Your task to perform on an android device: uninstall "Gmail" Image 0: 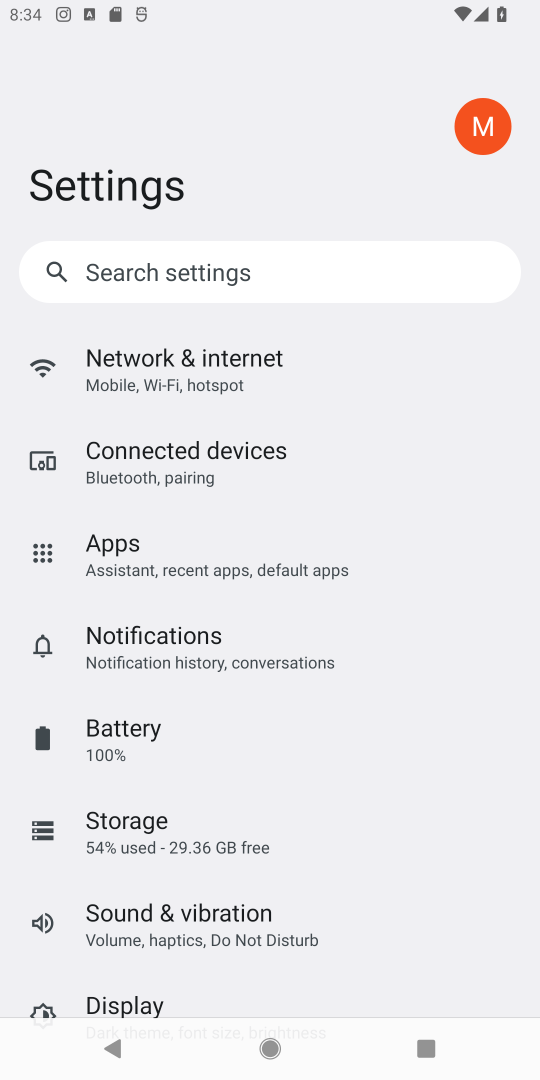
Step 0: press home button
Your task to perform on an android device: uninstall "Gmail" Image 1: 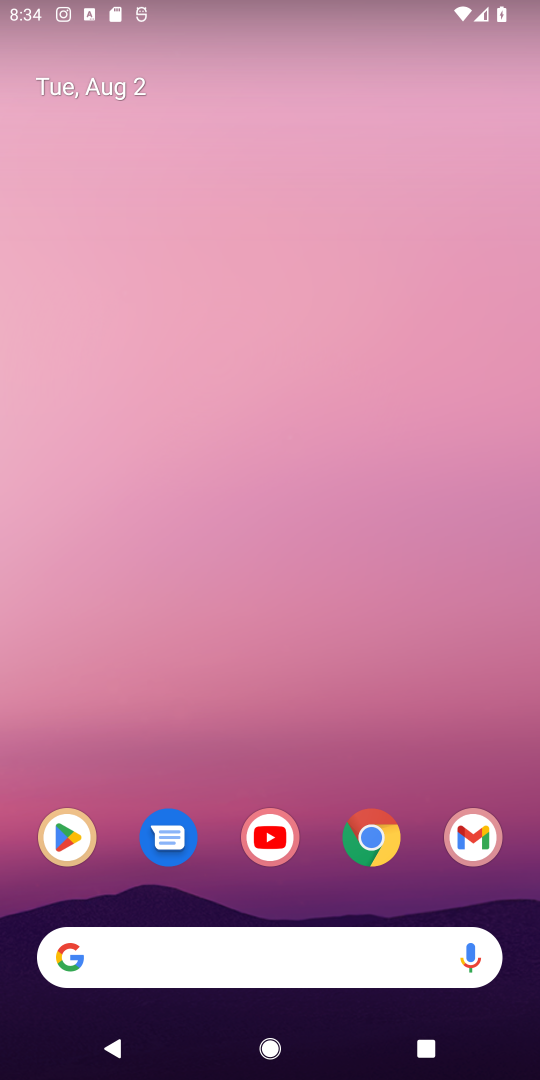
Step 1: click (64, 840)
Your task to perform on an android device: uninstall "Gmail" Image 2: 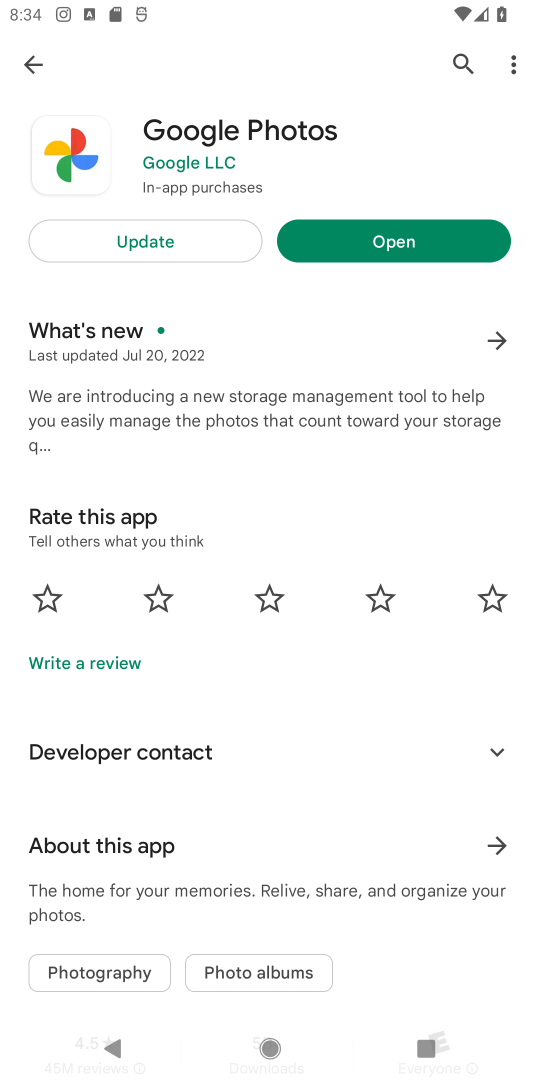
Step 2: click (461, 62)
Your task to perform on an android device: uninstall "Gmail" Image 3: 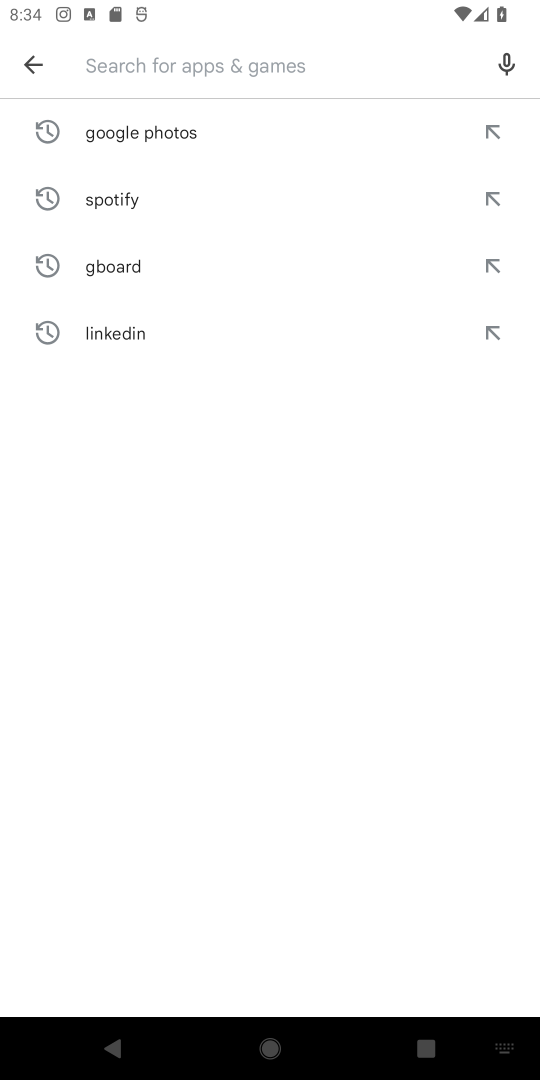
Step 3: type "Gmail"
Your task to perform on an android device: uninstall "Gmail" Image 4: 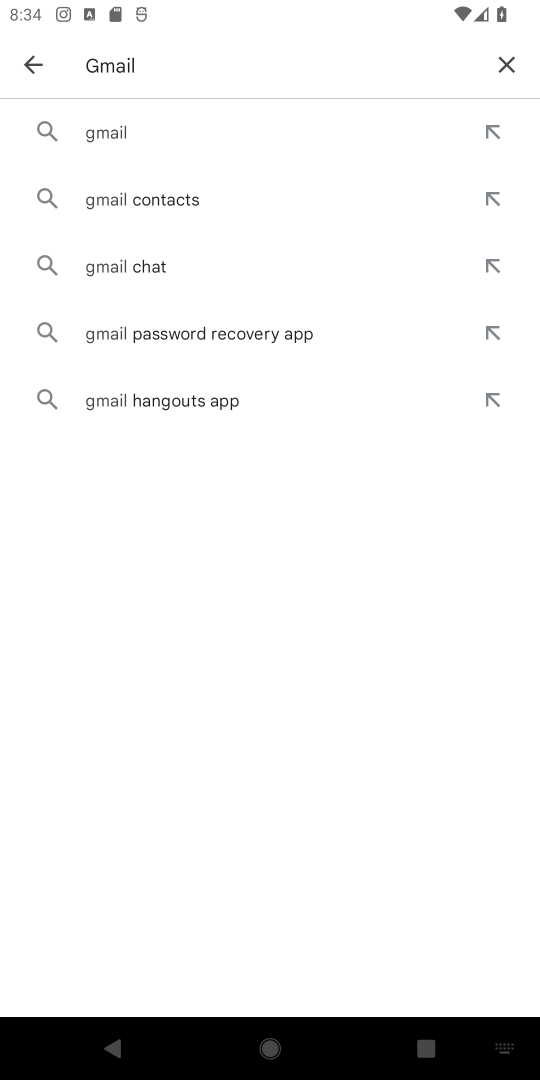
Step 4: click (92, 140)
Your task to perform on an android device: uninstall "Gmail" Image 5: 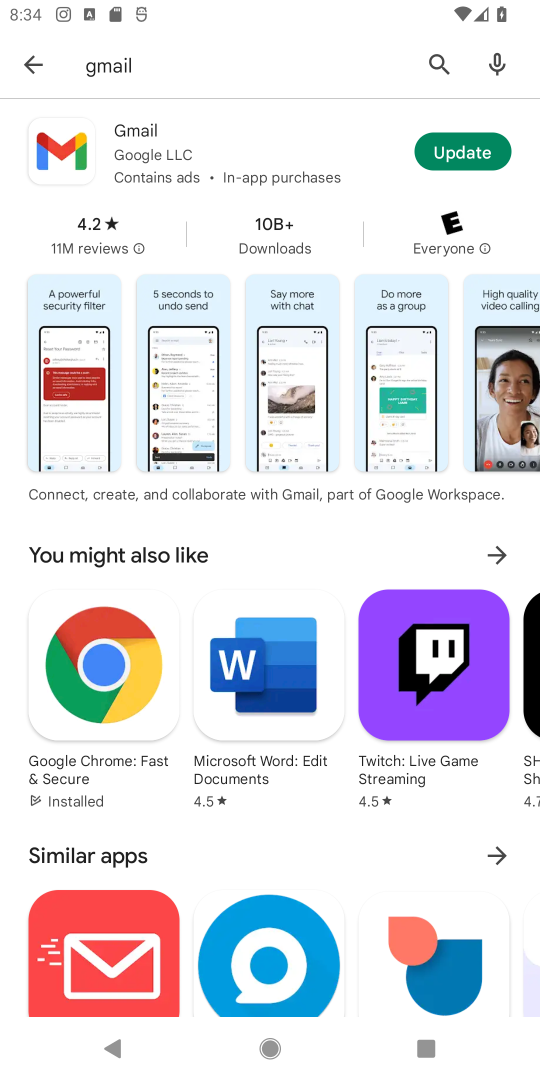
Step 5: click (137, 152)
Your task to perform on an android device: uninstall "Gmail" Image 6: 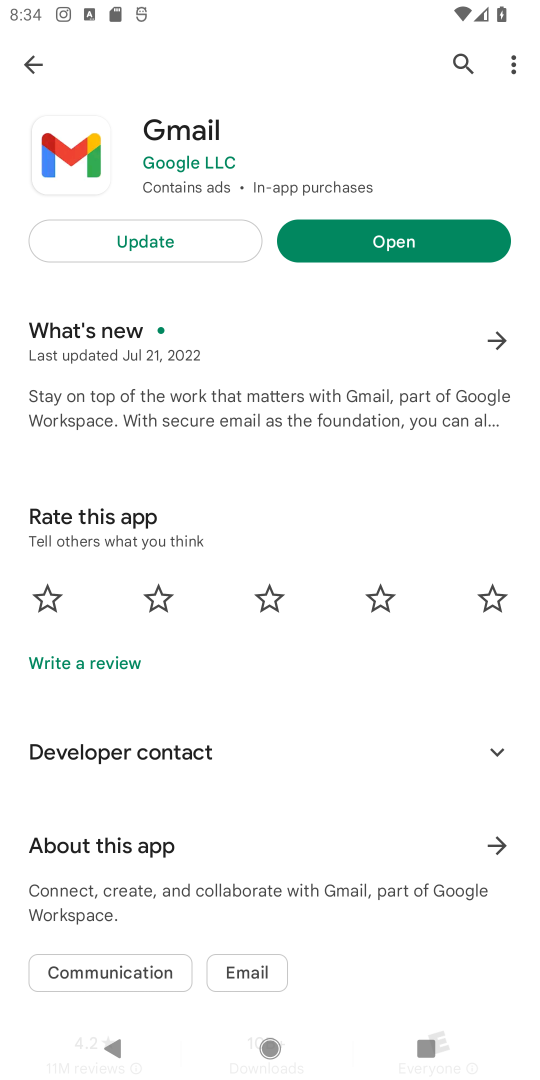
Step 6: task complete